Your task to perform on an android device: show emergency info Image 0: 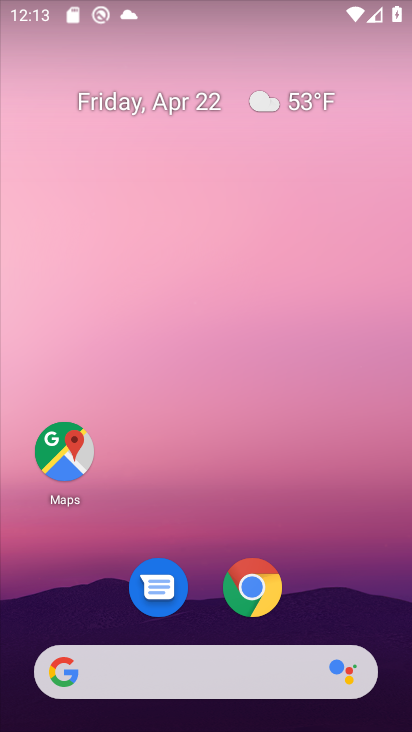
Step 0: drag from (301, 602) to (285, 156)
Your task to perform on an android device: show emergency info Image 1: 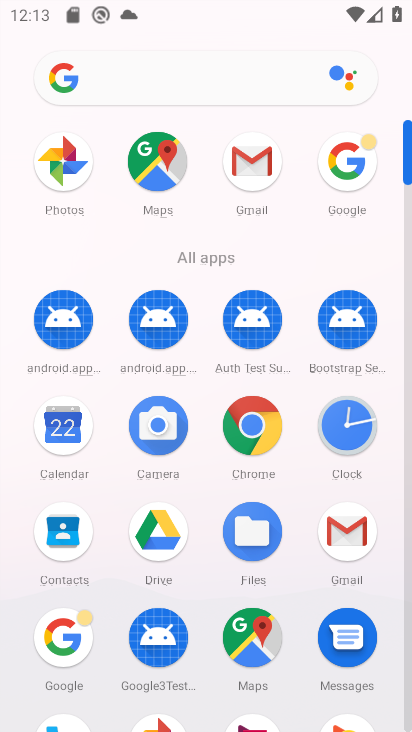
Step 1: drag from (213, 584) to (216, 231)
Your task to perform on an android device: show emergency info Image 2: 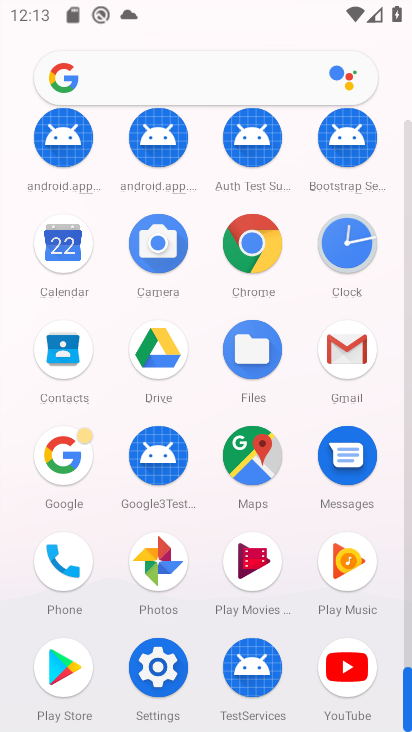
Step 2: click (157, 663)
Your task to perform on an android device: show emergency info Image 3: 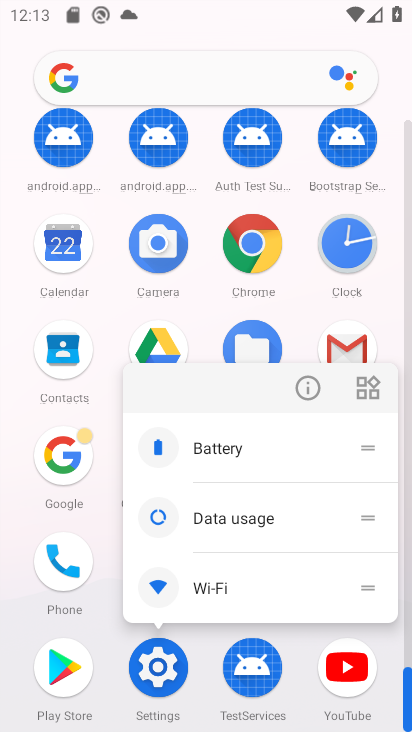
Step 3: click (160, 686)
Your task to perform on an android device: show emergency info Image 4: 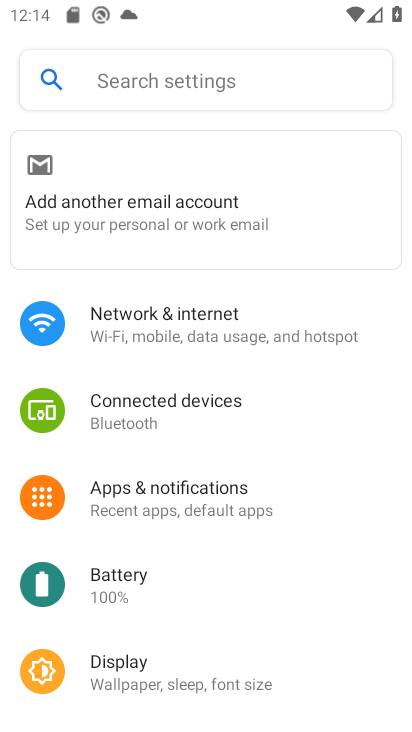
Step 4: click (166, 83)
Your task to perform on an android device: show emergency info Image 5: 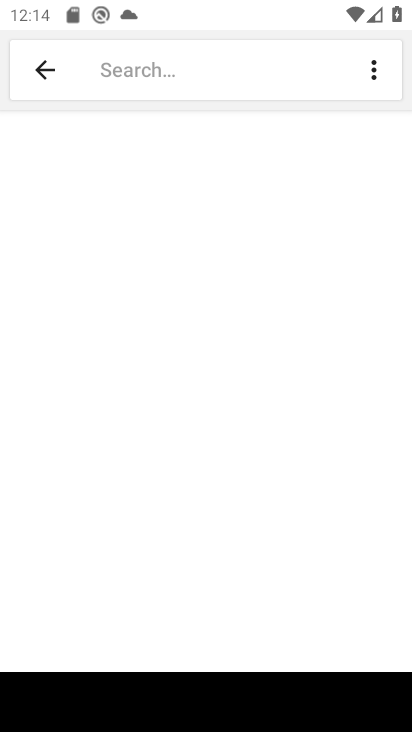
Step 5: type "emergency info"
Your task to perform on an android device: show emergency info Image 6: 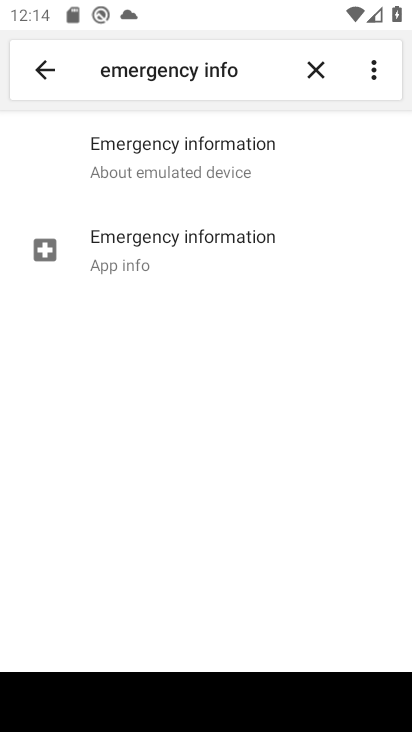
Step 6: click (154, 272)
Your task to perform on an android device: show emergency info Image 7: 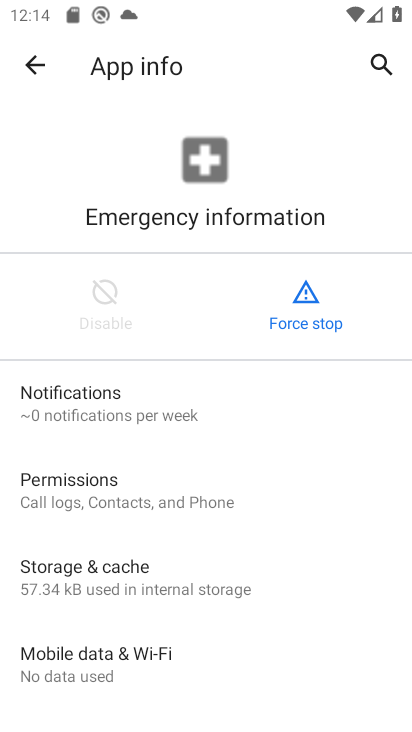
Step 7: task complete